Your task to perform on an android device: manage bookmarks in the chrome app Image 0: 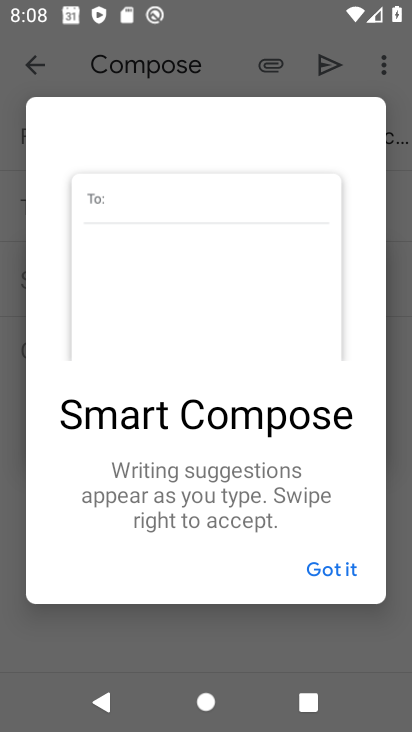
Step 0: press home button
Your task to perform on an android device: manage bookmarks in the chrome app Image 1: 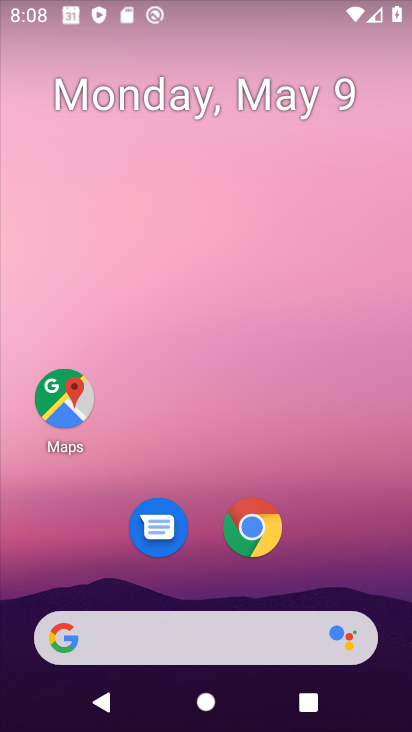
Step 1: click (244, 536)
Your task to perform on an android device: manage bookmarks in the chrome app Image 2: 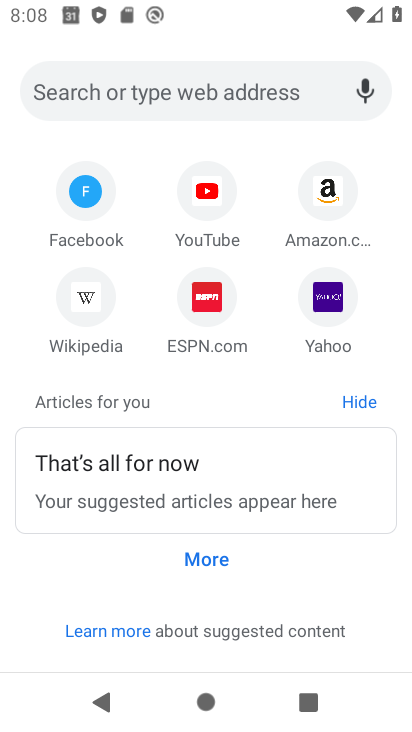
Step 2: drag from (261, 183) to (269, 604)
Your task to perform on an android device: manage bookmarks in the chrome app Image 3: 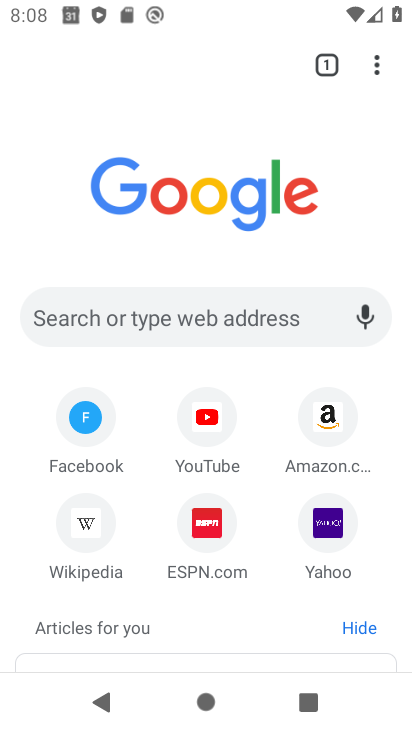
Step 3: click (375, 55)
Your task to perform on an android device: manage bookmarks in the chrome app Image 4: 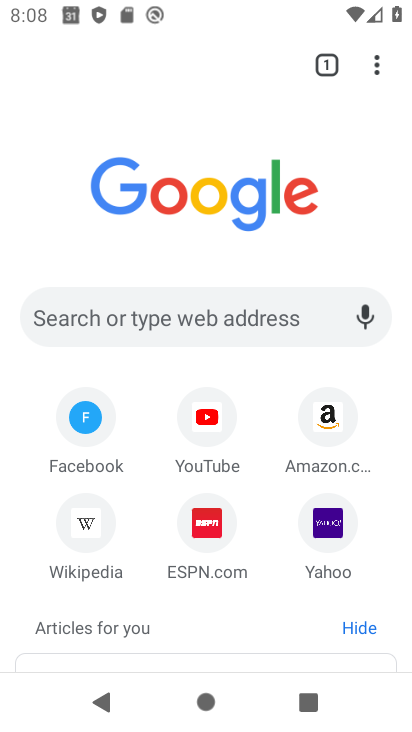
Step 4: click (369, 62)
Your task to perform on an android device: manage bookmarks in the chrome app Image 5: 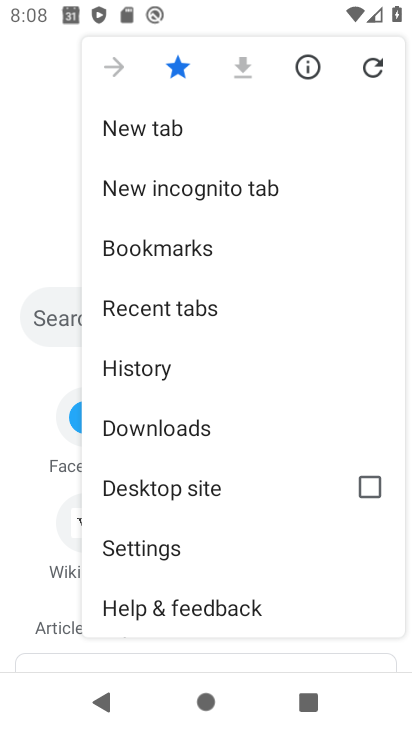
Step 5: click (207, 249)
Your task to perform on an android device: manage bookmarks in the chrome app Image 6: 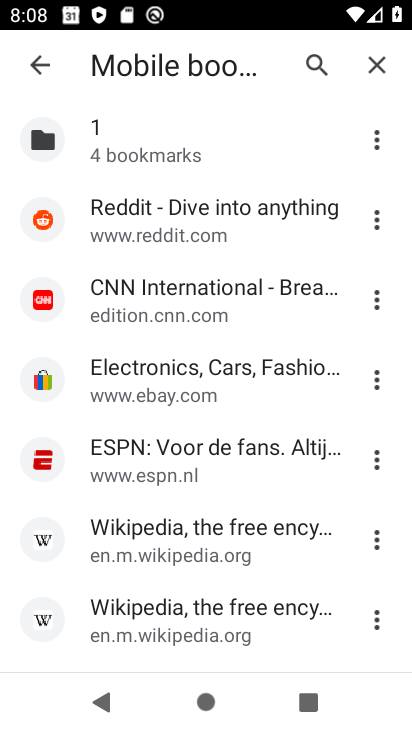
Step 6: click (376, 374)
Your task to perform on an android device: manage bookmarks in the chrome app Image 7: 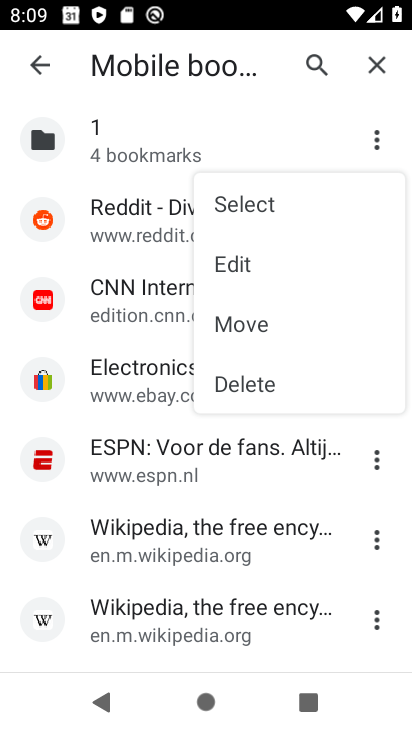
Step 7: click (284, 385)
Your task to perform on an android device: manage bookmarks in the chrome app Image 8: 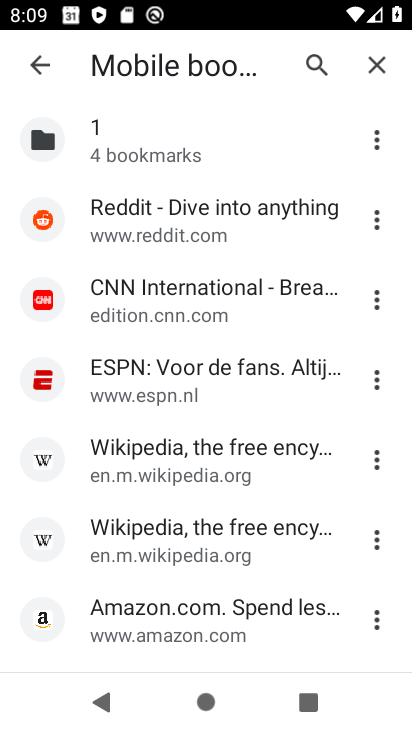
Step 8: task complete